Your task to perform on an android device: Open Google Chrome and open the bookmarks view Image 0: 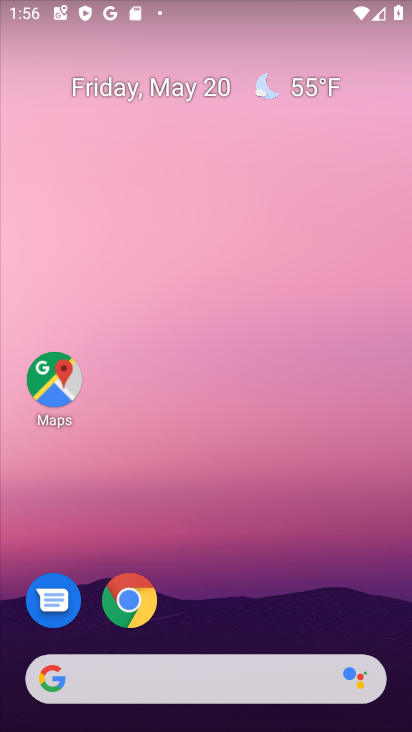
Step 0: drag from (241, 602) to (293, 156)
Your task to perform on an android device: Open Google Chrome and open the bookmarks view Image 1: 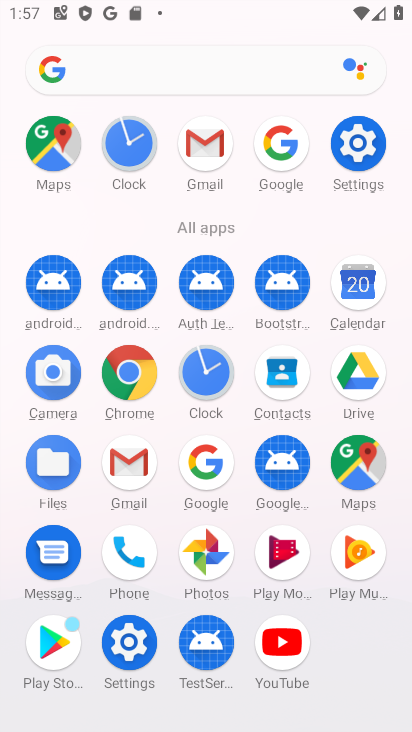
Step 1: click (147, 381)
Your task to perform on an android device: Open Google Chrome and open the bookmarks view Image 2: 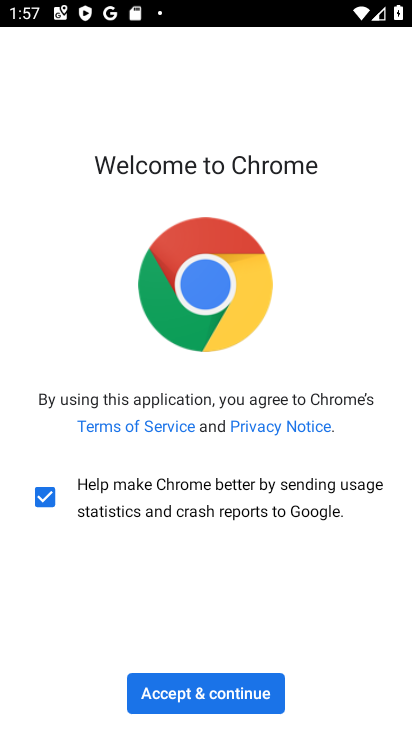
Step 2: click (213, 679)
Your task to perform on an android device: Open Google Chrome and open the bookmarks view Image 3: 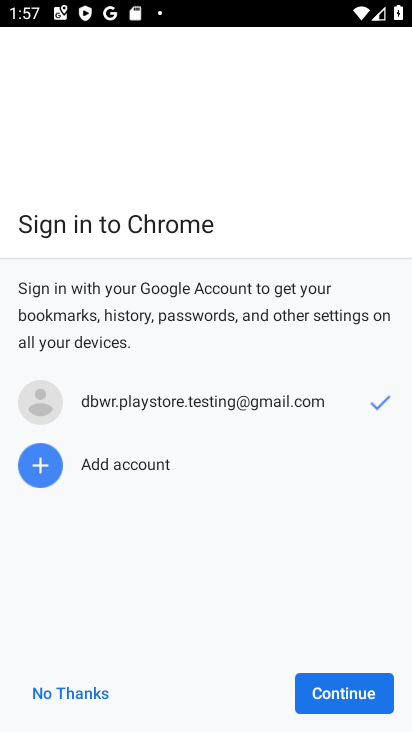
Step 3: click (331, 683)
Your task to perform on an android device: Open Google Chrome and open the bookmarks view Image 4: 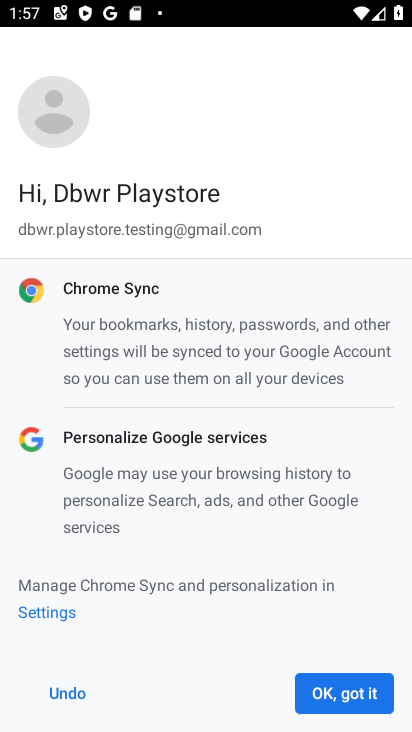
Step 4: click (360, 706)
Your task to perform on an android device: Open Google Chrome and open the bookmarks view Image 5: 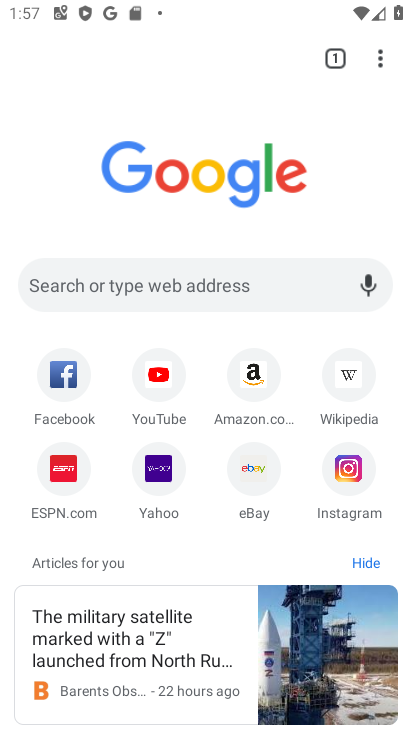
Step 5: click (387, 67)
Your task to perform on an android device: Open Google Chrome and open the bookmarks view Image 6: 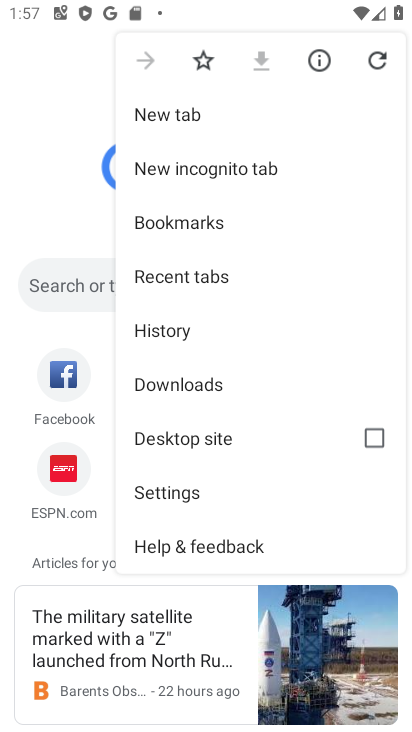
Step 6: click (181, 225)
Your task to perform on an android device: Open Google Chrome and open the bookmarks view Image 7: 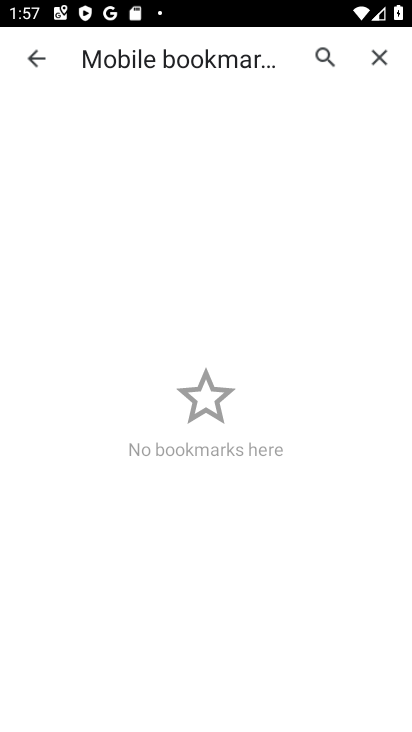
Step 7: task complete